Your task to perform on an android device: delete a single message in the gmail app Image 0: 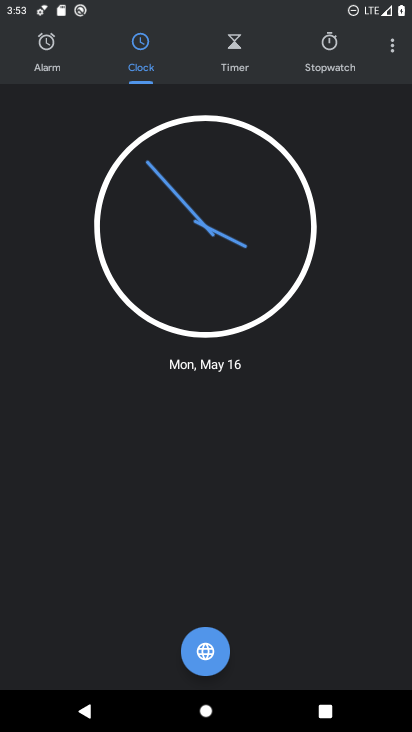
Step 0: press home button
Your task to perform on an android device: delete a single message in the gmail app Image 1: 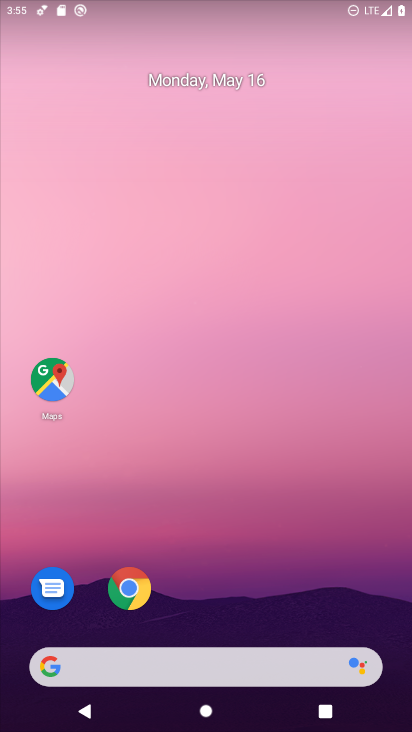
Step 1: drag from (316, 592) to (274, 36)
Your task to perform on an android device: delete a single message in the gmail app Image 2: 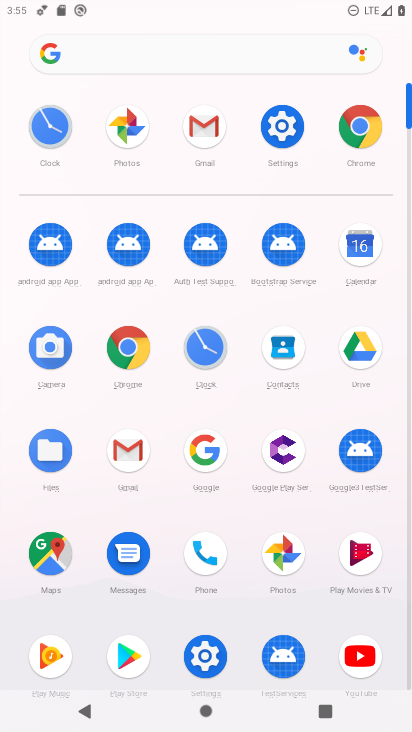
Step 2: click (200, 137)
Your task to perform on an android device: delete a single message in the gmail app Image 3: 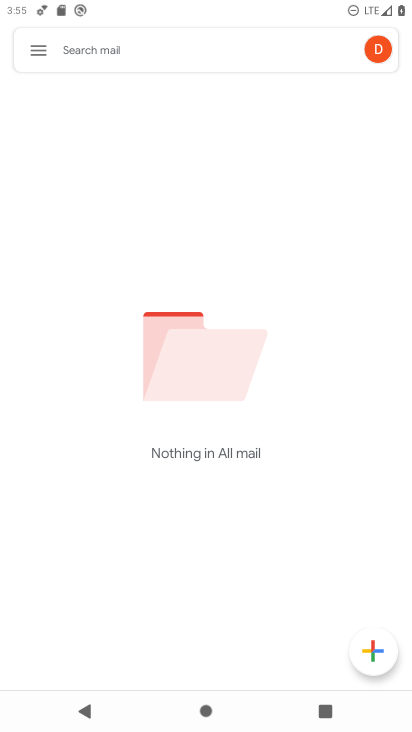
Step 3: click (37, 48)
Your task to perform on an android device: delete a single message in the gmail app Image 4: 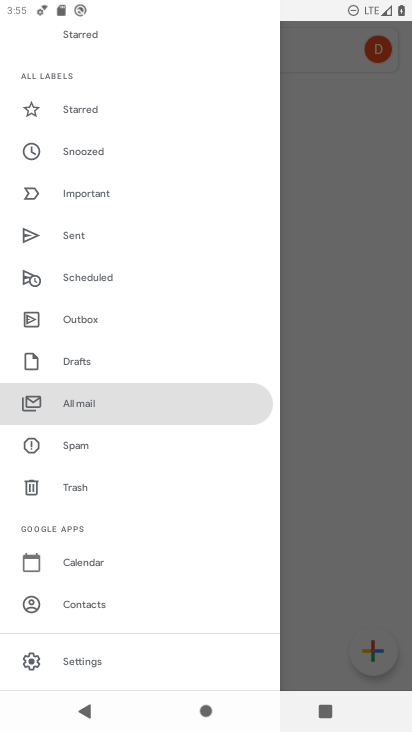
Step 4: click (110, 397)
Your task to perform on an android device: delete a single message in the gmail app Image 5: 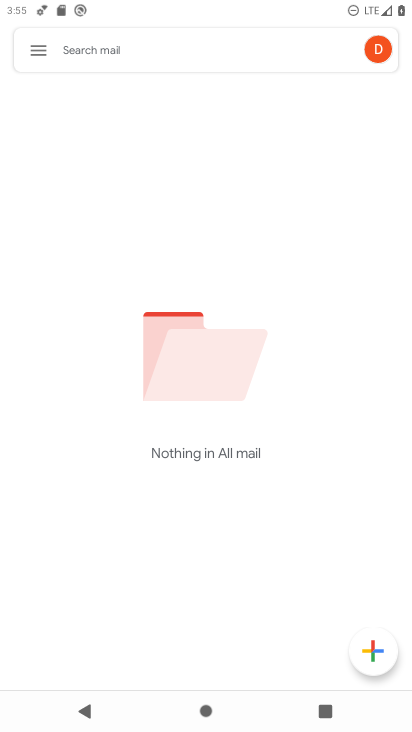
Step 5: task complete